Your task to perform on an android device: Go to network settings Image 0: 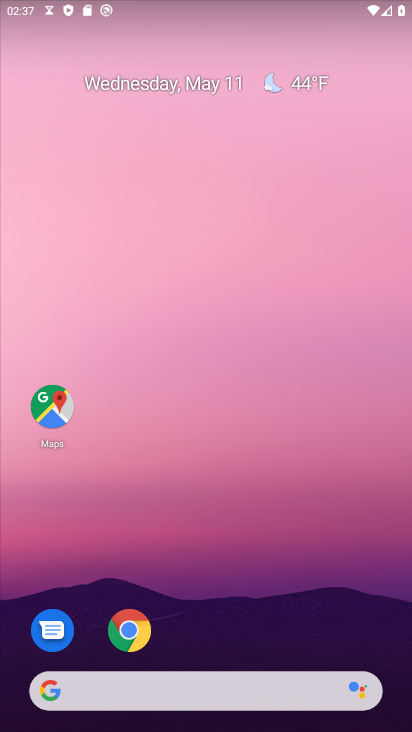
Step 0: drag from (197, 725) to (199, 89)
Your task to perform on an android device: Go to network settings Image 1: 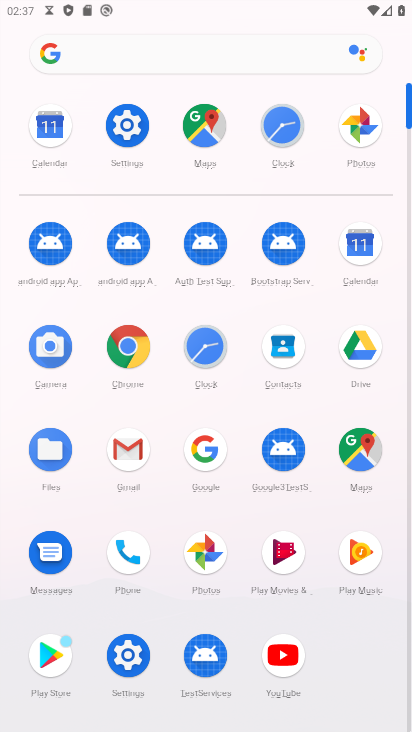
Step 1: click (133, 118)
Your task to perform on an android device: Go to network settings Image 2: 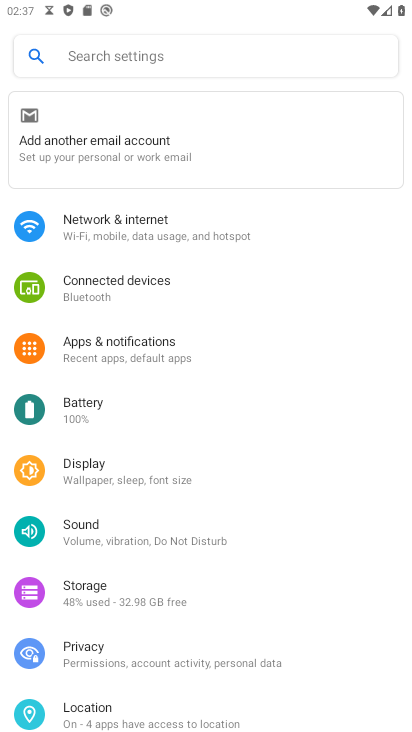
Step 2: click (121, 228)
Your task to perform on an android device: Go to network settings Image 3: 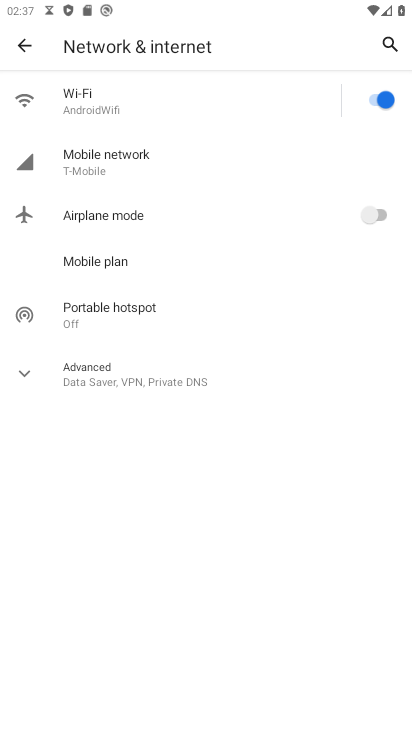
Step 3: click (107, 155)
Your task to perform on an android device: Go to network settings Image 4: 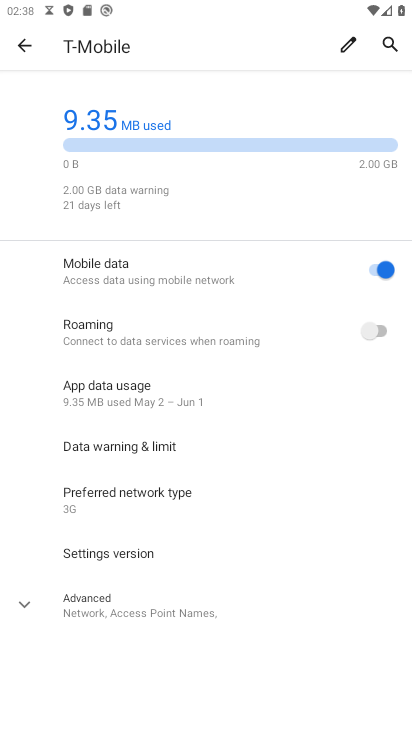
Step 4: task complete